Your task to perform on an android device: Search for vegetarian restaurants on Maps Image 0: 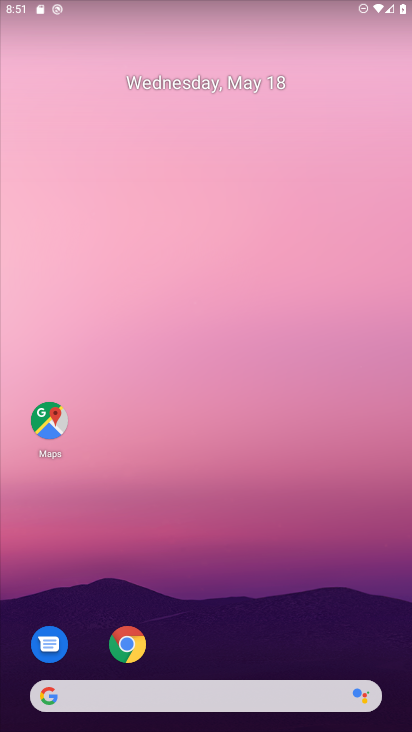
Step 0: click (45, 417)
Your task to perform on an android device: Search for vegetarian restaurants on Maps Image 1: 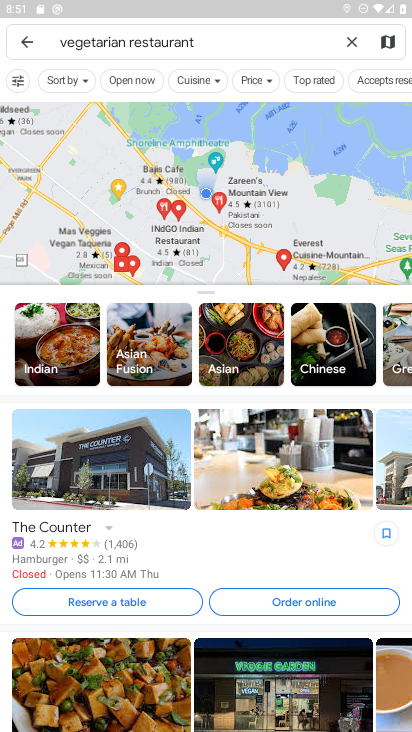
Step 1: task complete